Your task to perform on an android device: turn off improve location accuracy Image 0: 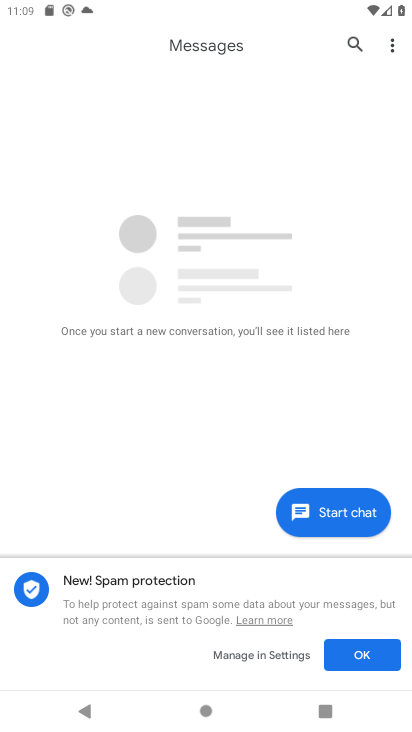
Step 0: press home button
Your task to perform on an android device: turn off improve location accuracy Image 1: 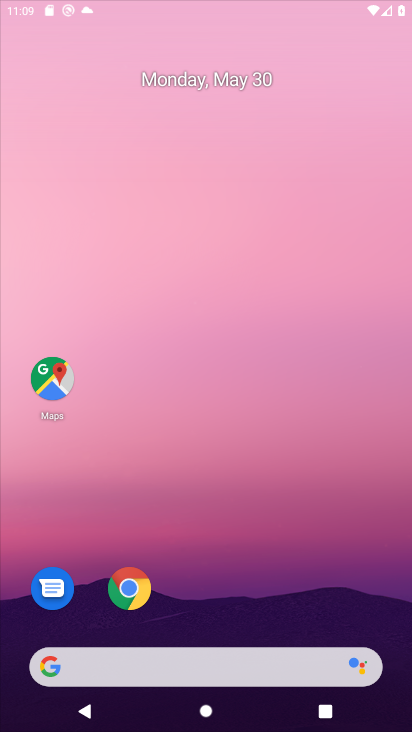
Step 1: drag from (187, 642) to (152, 32)
Your task to perform on an android device: turn off improve location accuracy Image 2: 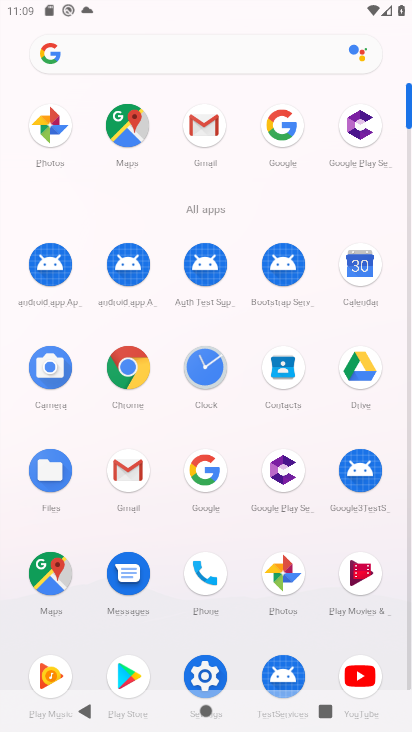
Step 2: click (199, 672)
Your task to perform on an android device: turn off improve location accuracy Image 3: 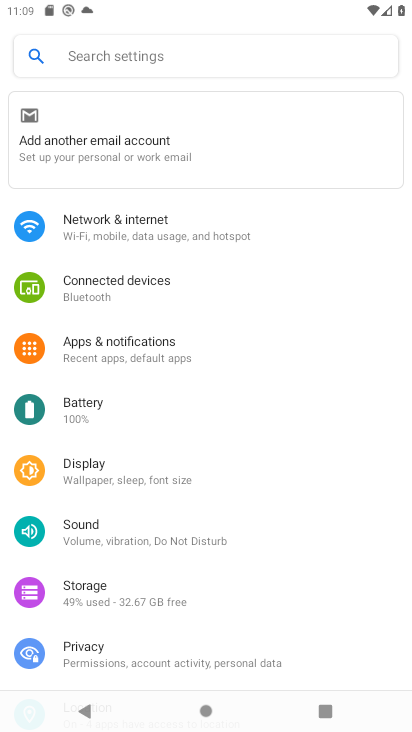
Step 3: drag from (167, 671) to (217, 319)
Your task to perform on an android device: turn off improve location accuracy Image 4: 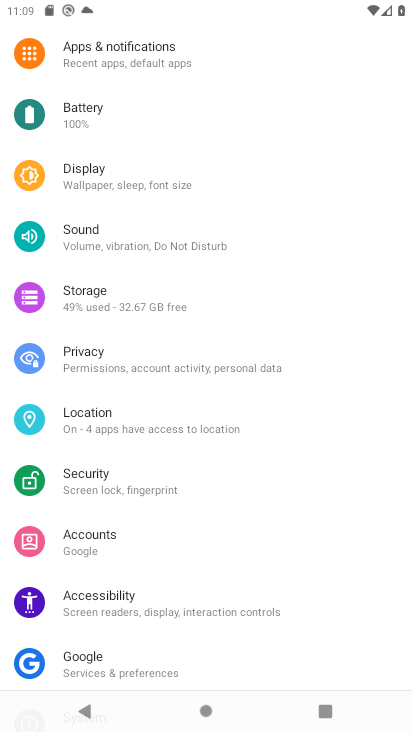
Step 4: click (213, 413)
Your task to perform on an android device: turn off improve location accuracy Image 5: 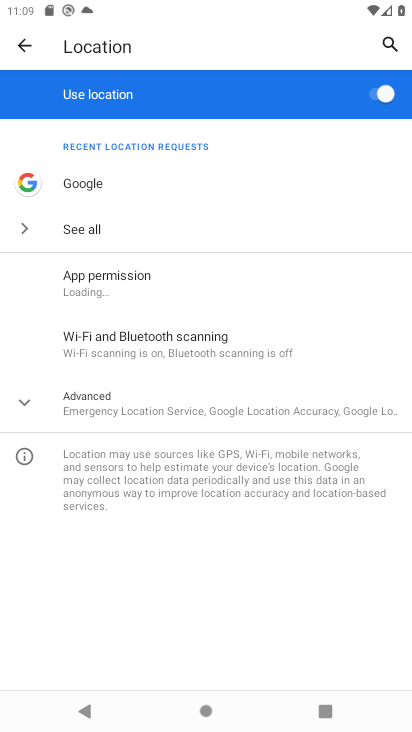
Step 5: click (143, 396)
Your task to perform on an android device: turn off improve location accuracy Image 6: 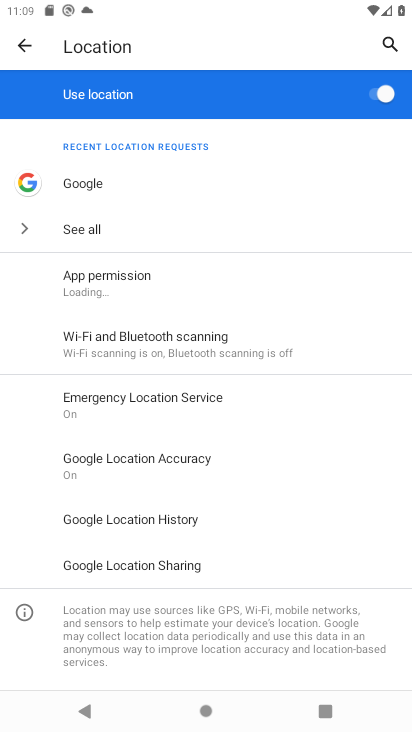
Step 6: click (178, 477)
Your task to perform on an android device: turn off improve location accuracy Image 7: 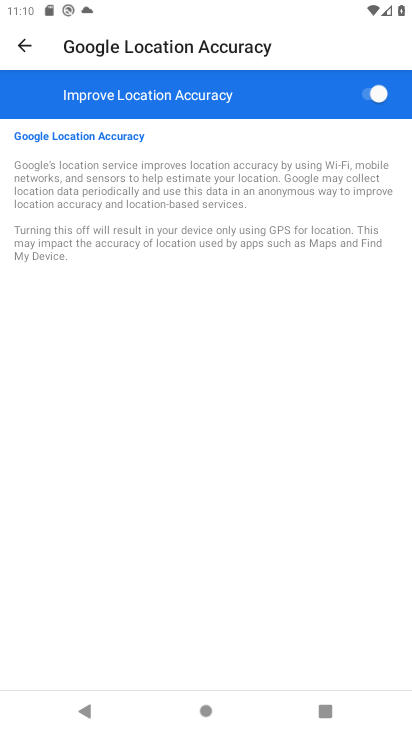
Step 7: task complete